Your task to perform on an android device: Open sound settings Image 0: 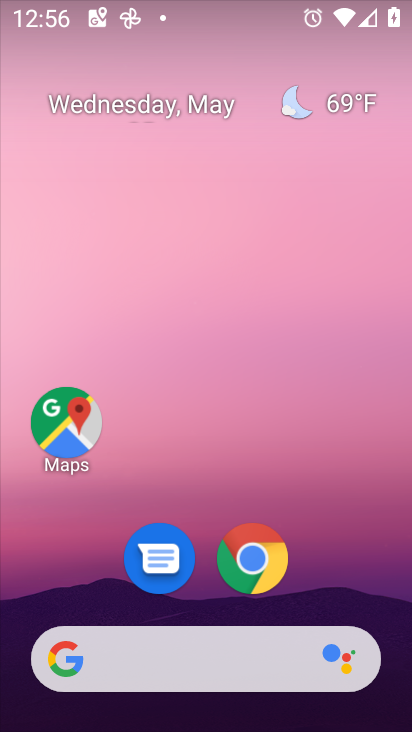
Step 0: drag from (398, 643) to (303, 74)
Your task to perform on an android device: Open sound settings Image 1: 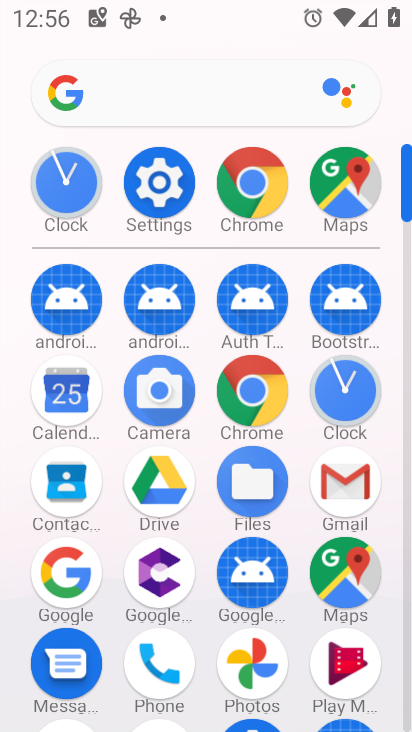
Step 1: click (150, 203)
Your task to perform on an android device: Open sound settings Image 2: 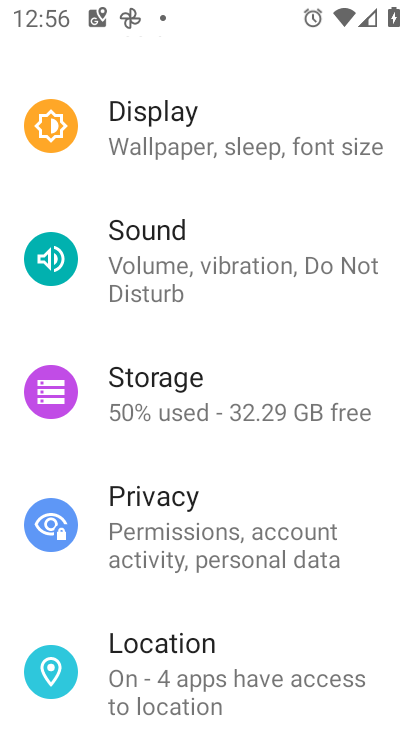
Step 2: click (272, 280)
Your task to perform on an android device: Open sound settings Image 3: 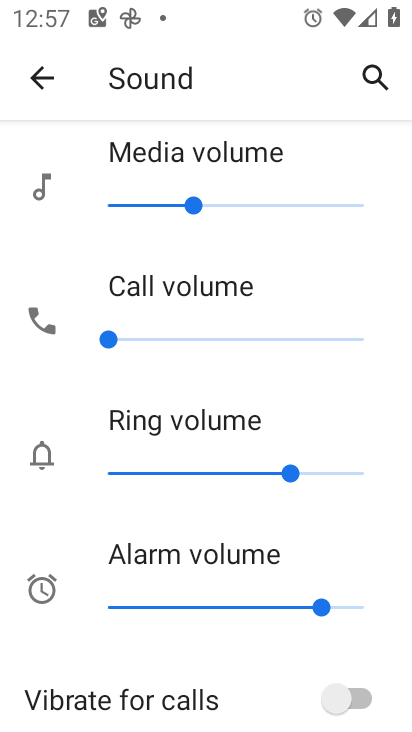
Step 3: task complete